Your task to perform on an android device: See recent photos Image 0: 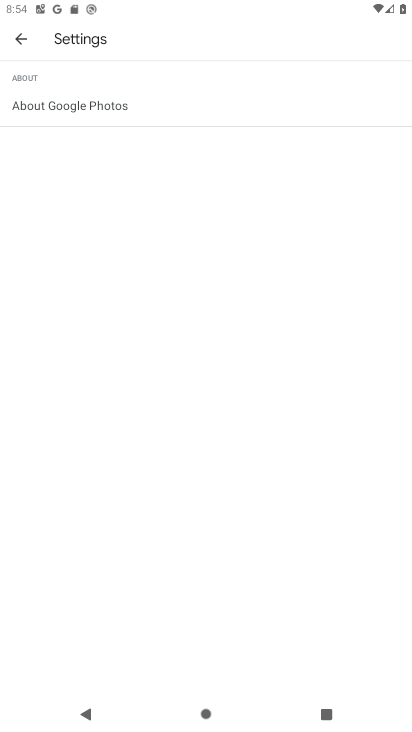
Step 0: press home button
Your task to perform on an android device: See recent photos Image 1: 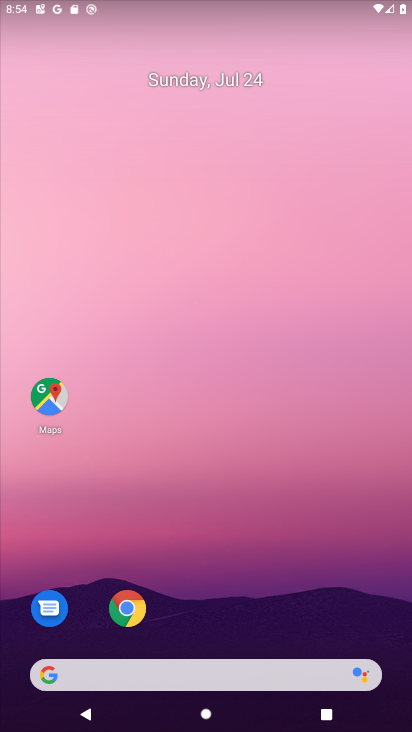
Step 1: drag from (264, 606) to (225, 95)
Your task to perform on an android device: See recent photos Image 2: 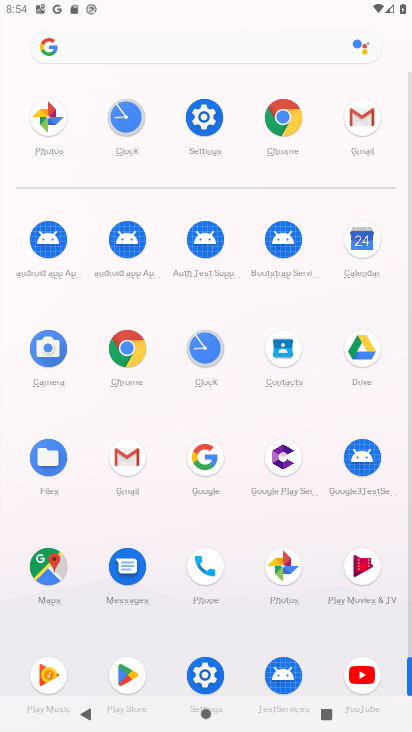
Step 2: click (55, 117)
Your task to perform on an android device: See recent photos Image 3: 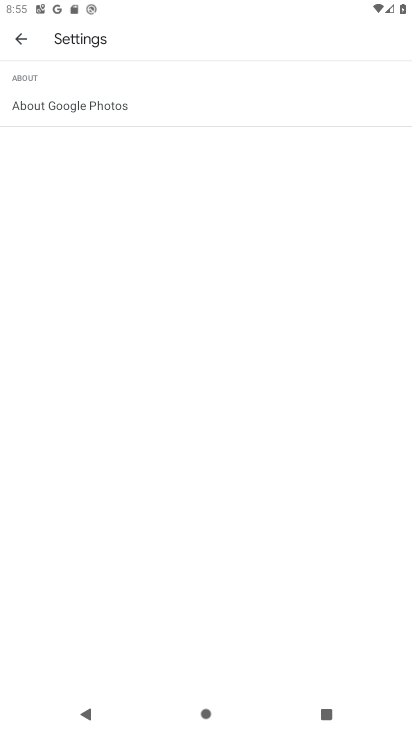
Step 3: click (38, 50)
Your task to perform on an android device: See recent photos Image 4: 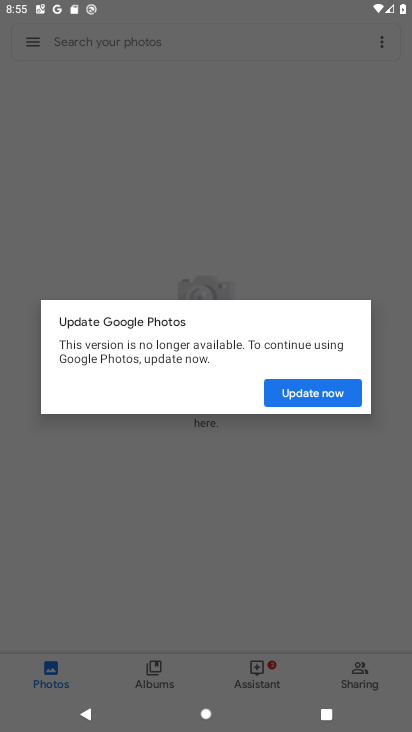
Step 4: click (289, 399)
Your task to perform on an android device: See recent photos Image 5: 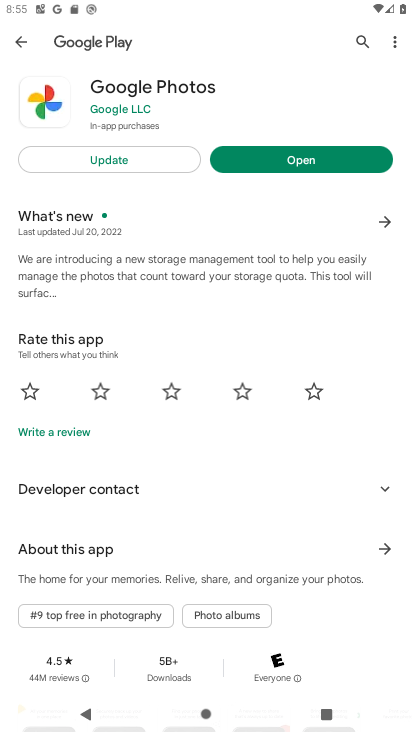
Step 5: click (324, 170)
Your task to perform on an android device: See recent photos Image 6: 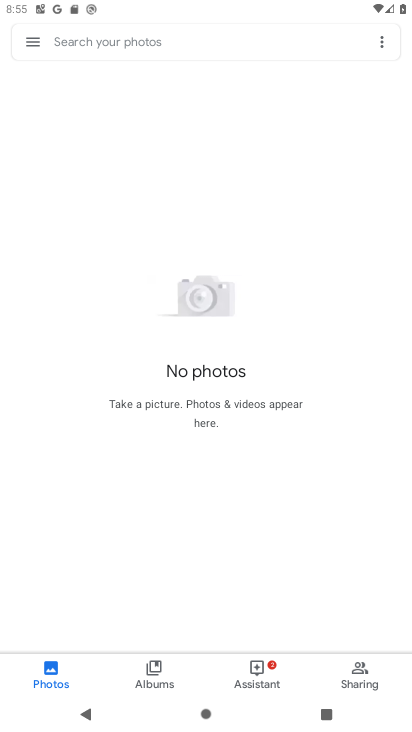
Step 6: task complete